Your task to perform on an android device: turn off notifications in google photos Image 0: 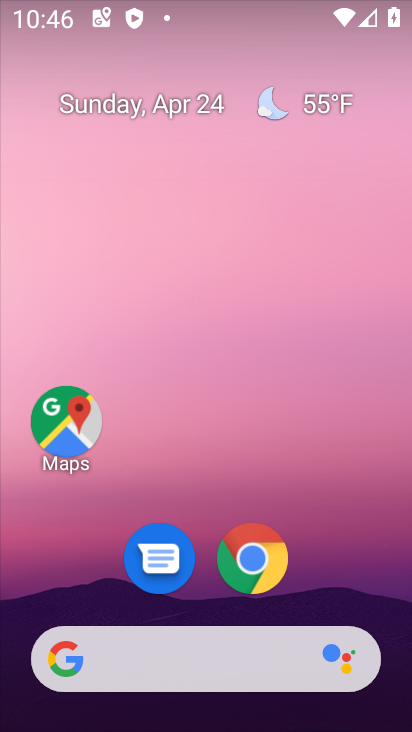
Step 0: drag from (237, 719) to (107, 69)
Your task to perform on an android device: turn off notifications in google photos Image 1: 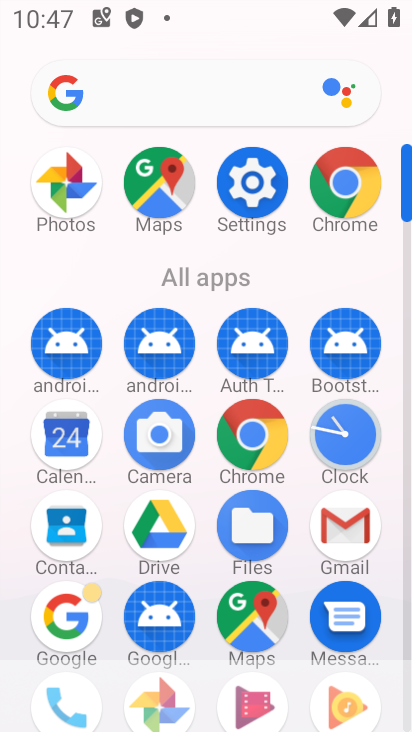
Step 1: click (66, 182)
Your task to perform on an android device: turn off notifications in google photos Image 2: 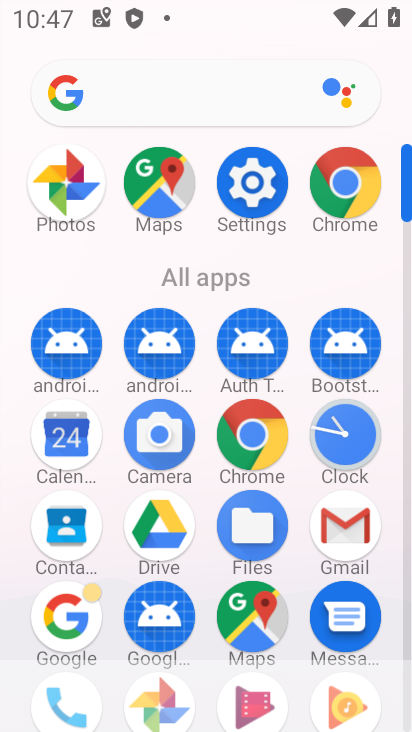
Step 2: click (66, 182)
Your task to perform on an android device: turn off notifications in google photos Image 3: 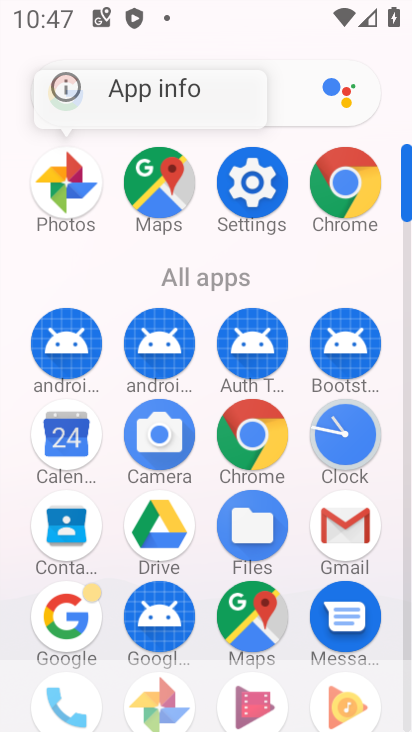
Step 3: click (67, 183)
Your task to perform on an android device: turn off notifications in google photos Image 4: 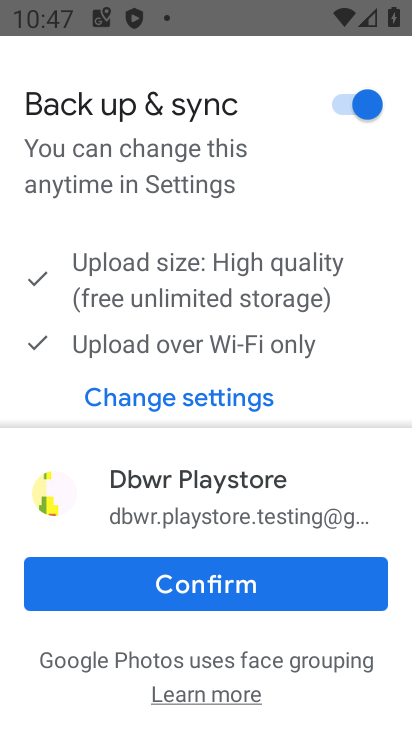
Step 4: click (206, 583)
Your task to perform on an android device: turn off notifications in google photos Image 5: 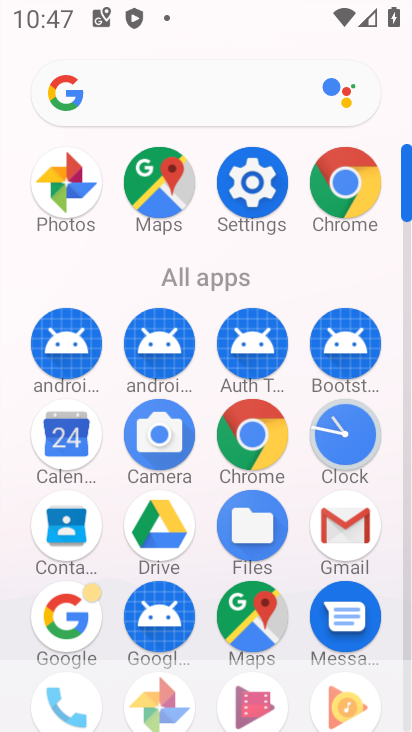
Step 5: click (66, 174)
Your task to perform on an android device: turn off notifications in google photos Image 6: 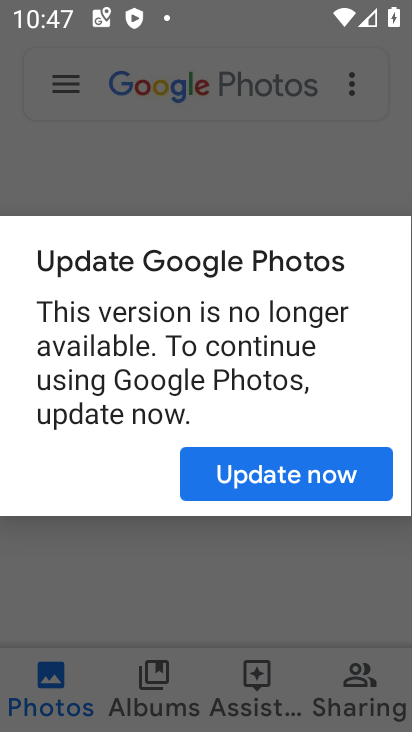
Step 6: click (305, 467)
Your task to perform on an android device: turn off notifications in google photos Image 7: 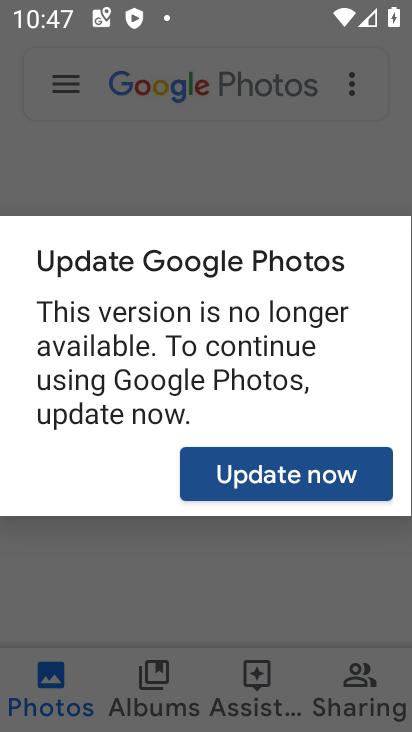
Step 7: click (307, 472)
Your task to perform on an android device: turn off notifications in google photos Image 8: 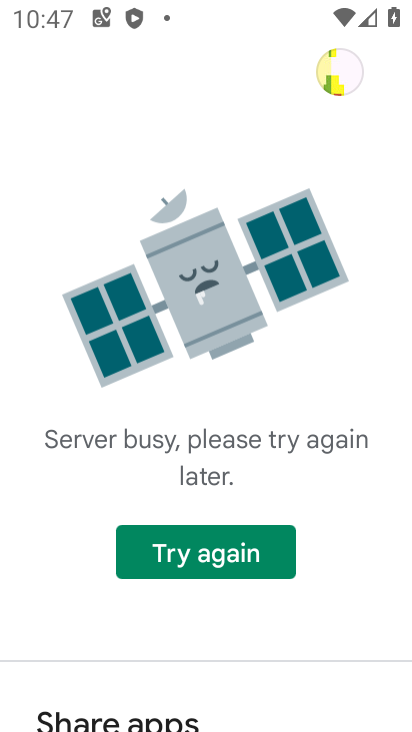
Step 8: task complete